Your task to perform on an android device: Open my contact list Image 0: 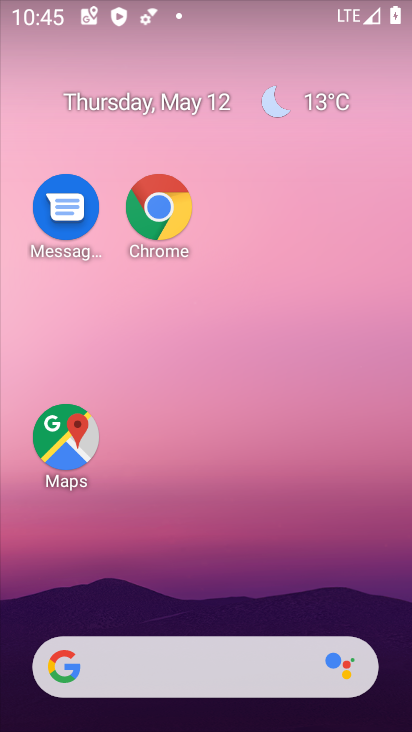
Step 0: drag from (214, 624) to (354, 5)
Your task to perform on an android device: Open my contact list Image 1: 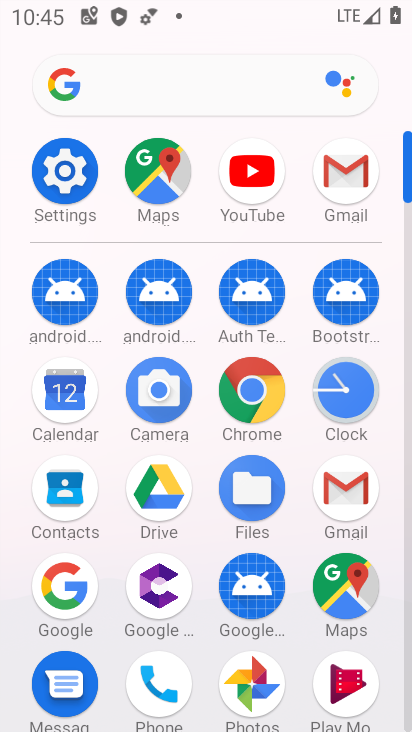
Step 1: click (81, 161)
Your task to perform on an android device: Open my contact list Image 2: 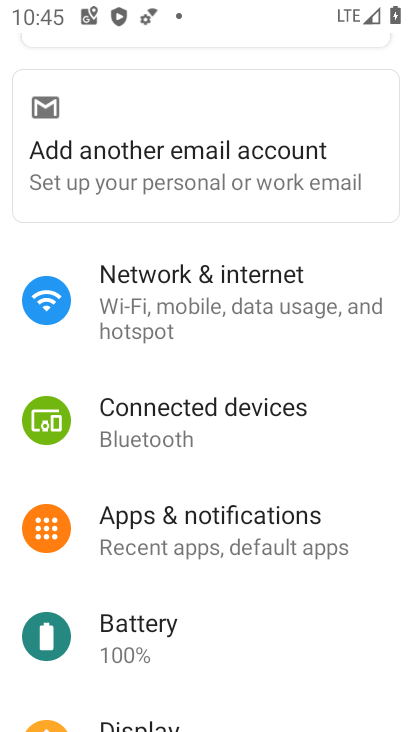
Step 2: press home button
Your task to perform on an android device: Open my contact list Image 3: 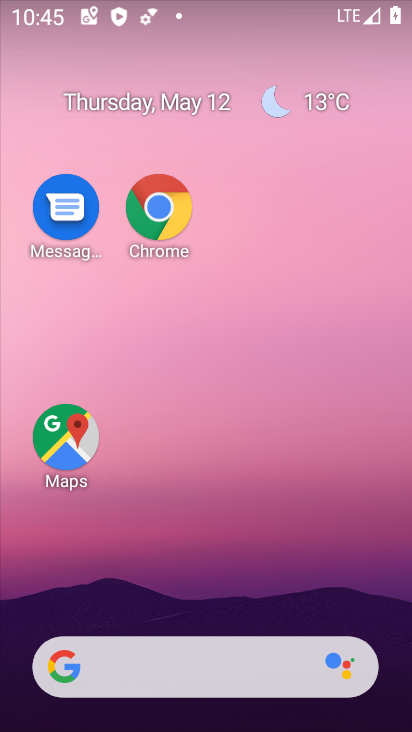
Step 3: drag from (229, 604) to (189, 26)
Your task to perform on an android device: Open my contact list Image 4: 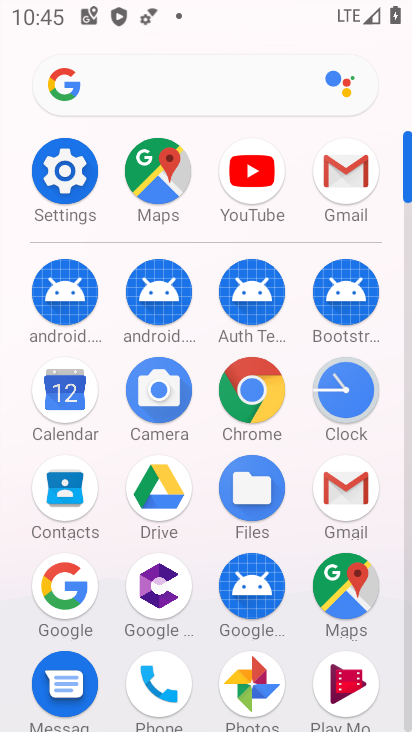
Step 4: click (157, 675)
Your task to perform on an android device: Open my contact list Image 5: 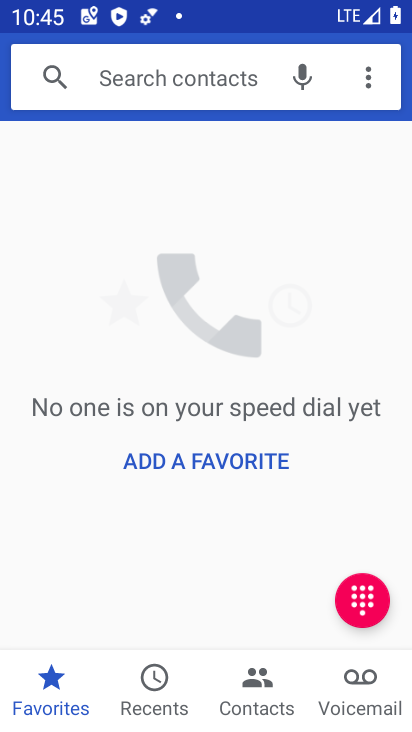
Step 5: click (264, 703)
Your task to perform on an android device: Open my contact list Image 6: 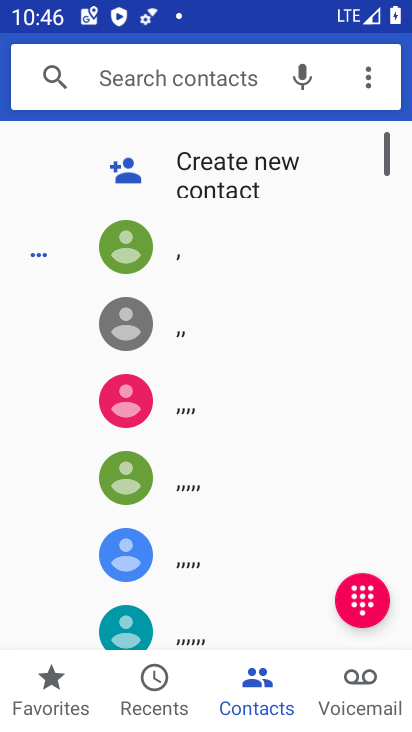
Step 6: task complete